Your task to perform on an android device: change alarm snooze length Image 0: 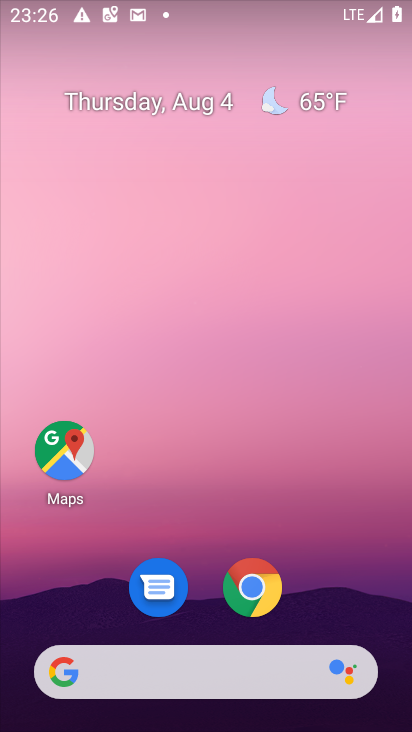
Step 0: drag from (214, 619) to (215, 236)
Your task to perform on an android device: change alarm snooze length Image 1: 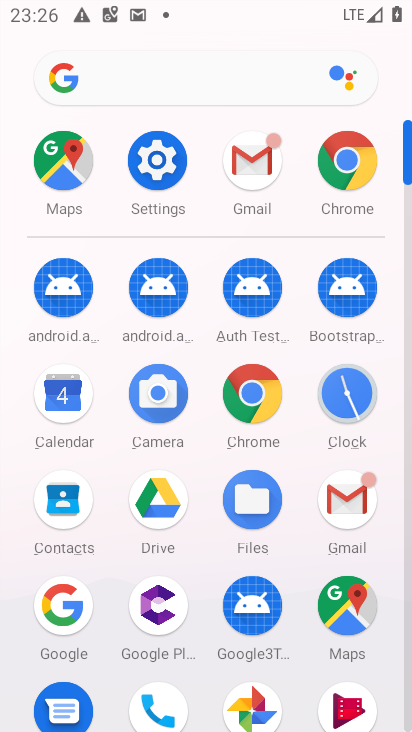
Step 1: click (347, 406)
Your task to perform on an android device: change alarm snooze length Image 2: 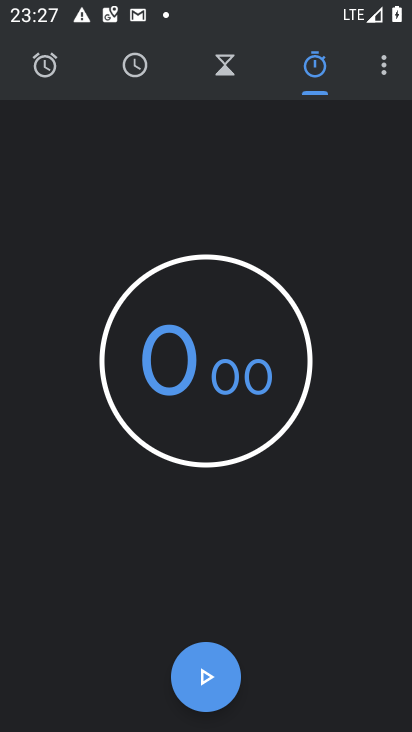
Step 2: click (386, 74)
Your task to perform on an android device: change alarm snooze length Image 3: 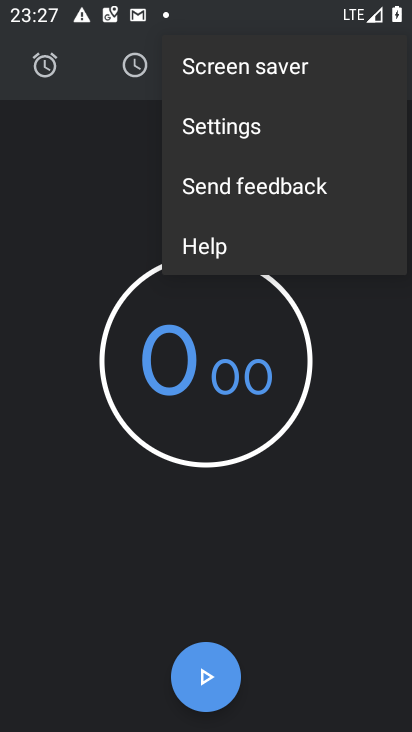
Step 3: click (228, 132)
Your task to perform on an android device: change alarm snooze length Image 4: 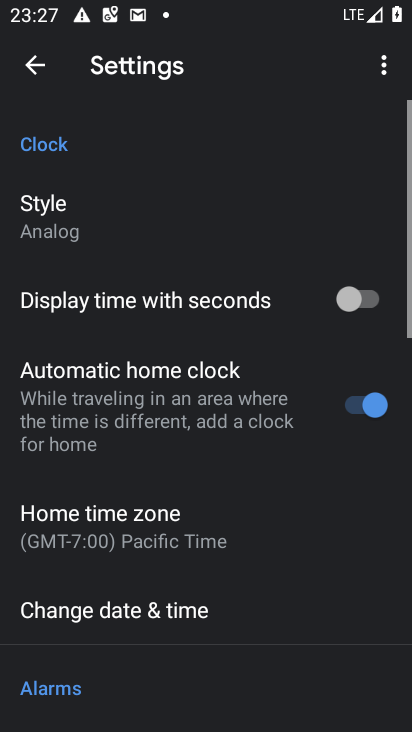
Step 4: drag from (140, 620) to (159, 254)
Your task to perform on an android device: change alarm snooze length Image 5: 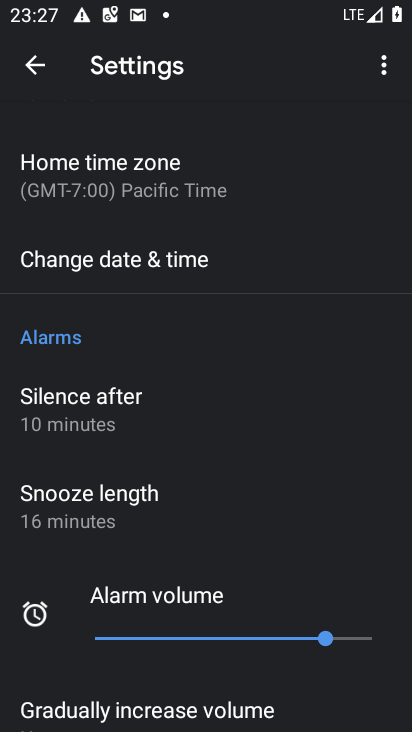
Step 5: click (108, 502)
Your task to perform on an android device: change alarm snooze length Image 6: 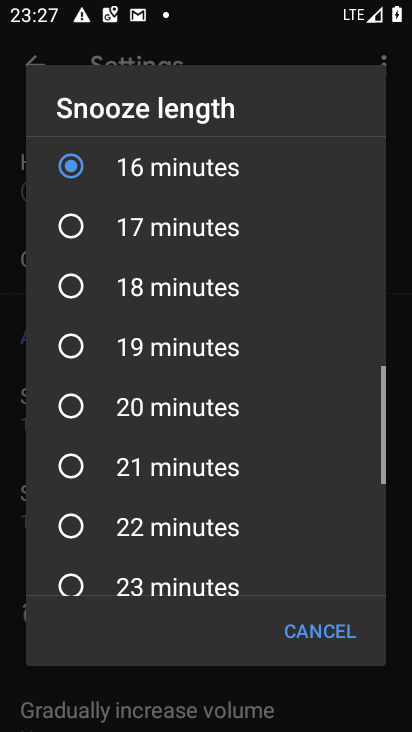
Step 6: click (153, 517)
Your task to perform on an android device: change alarm snooze length Image 7: 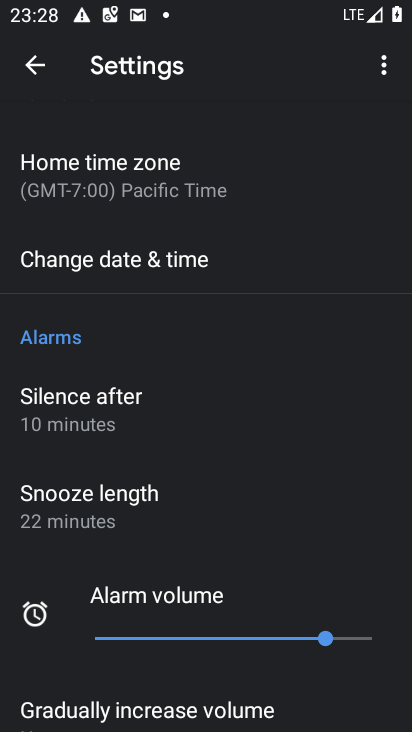
Step 7: task complete